Your task to perform on an android device: Open settings Image 0: 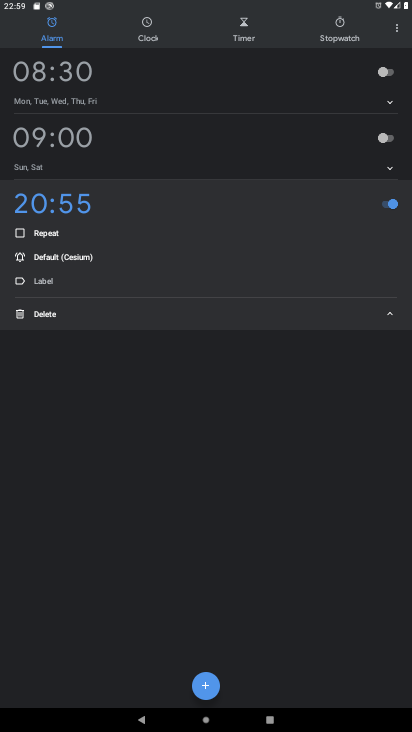
Step 0: press home button
Your task to perform on an android device: Open settings Image 1: 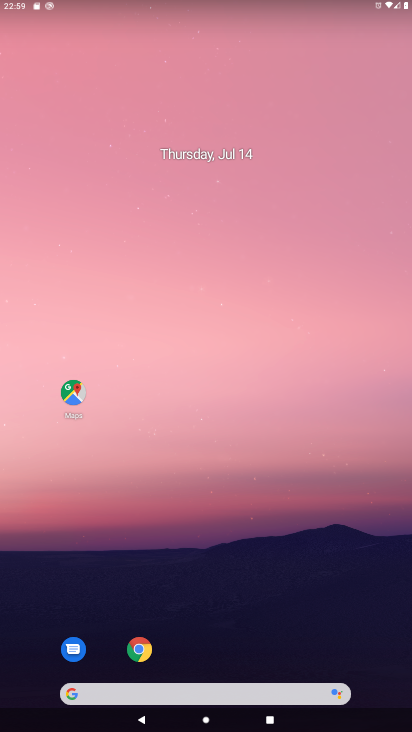
Step 1: drag from (160, 649) to (219, 1)
Your task to perform on an android device: Open settings Image 2: 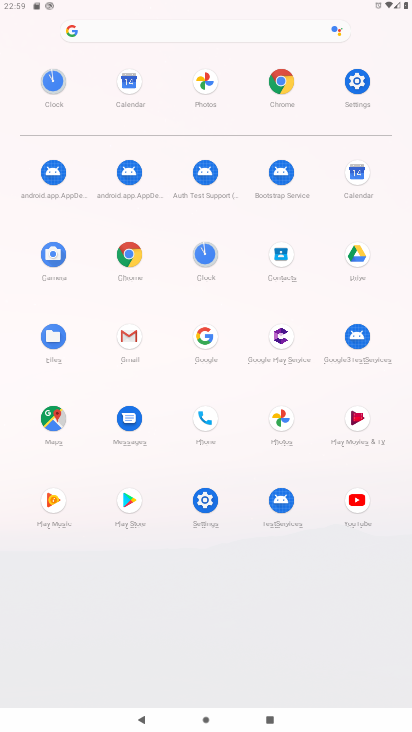
Step 2: click (359, 81)
Your task to perform on an android device: Open settings Image 3: 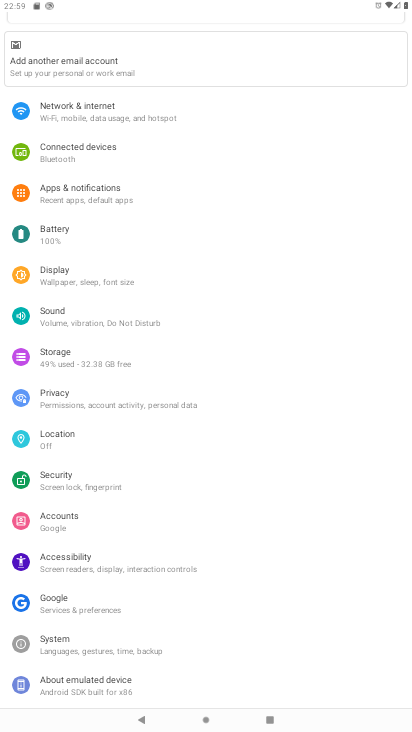
Step 3: task complete